Your task to perform on an android device: What's on my calendar today? Image 0: 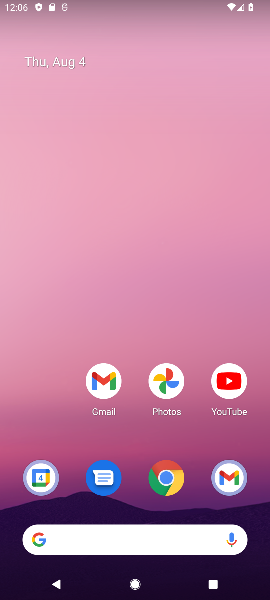
Step 0: drag from (179, 423) to (172, 45)
Your task to perform on an android device: What's on my calendar today? Image 1: 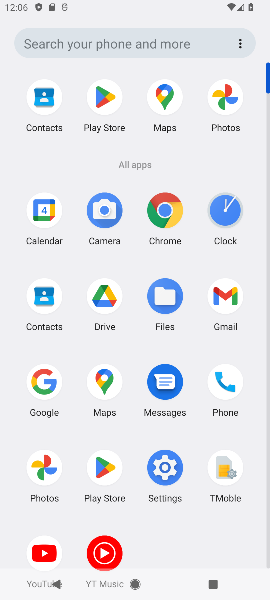
Step 1: click (48, 206)
Your task to perform on an android device: What's on my calendar today? Image 2: 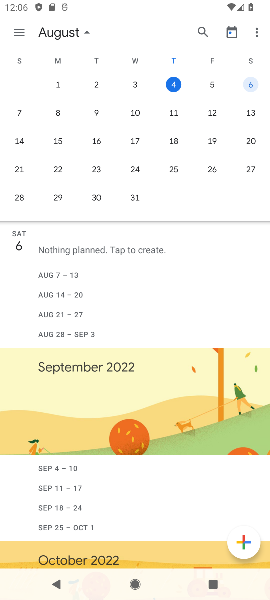
Step 2: click (174, 83)
Your task to perform on an android device: What's on my calendar today? Image 3: 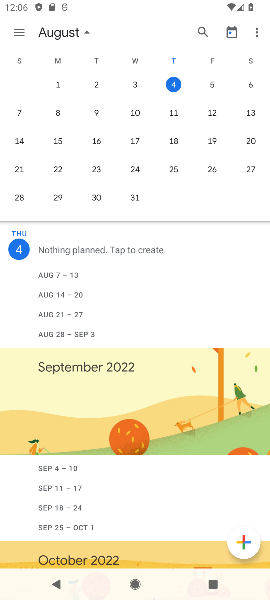
Step 3: task complete